Your task to perform on an android device: open sync settings in chrome Image 0: 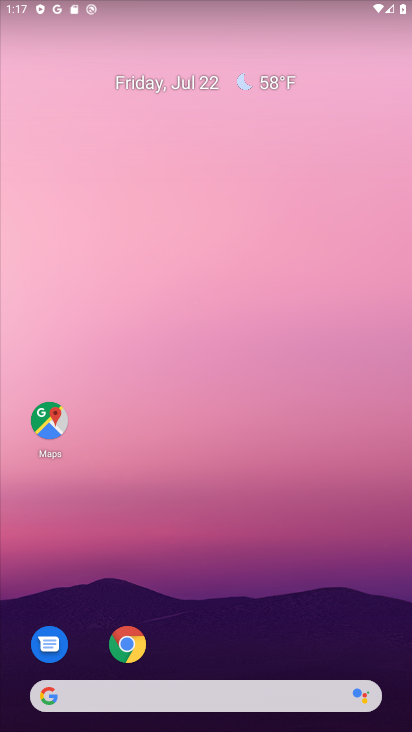
Step 0: drag from (177, 661) to (230, 152)
Your task to perform on an android device: open sync settings in chrome Image 1: 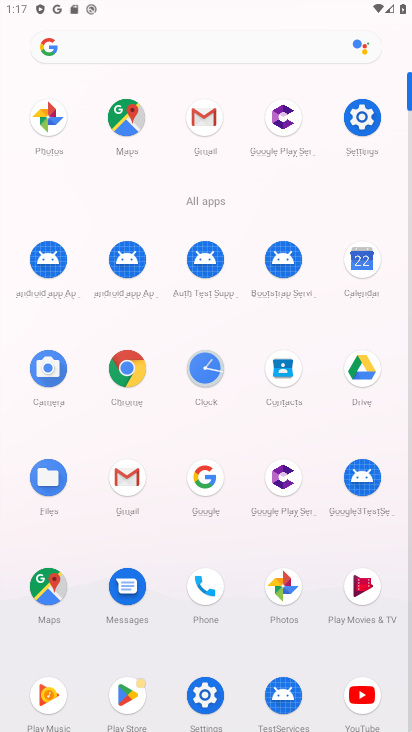
Step 1: click (128, 371)
Your task to perform on an android device: open sync settings in chrome Image 2: 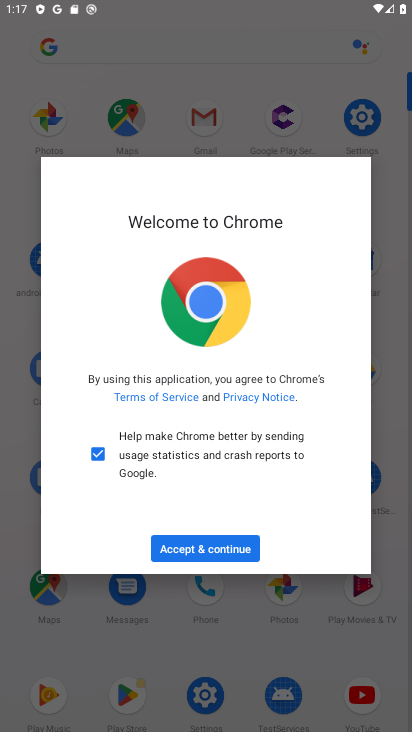
Step 2: click (204, 554)
Your task to perform on an android device: open sync settings in chrome Image 3: 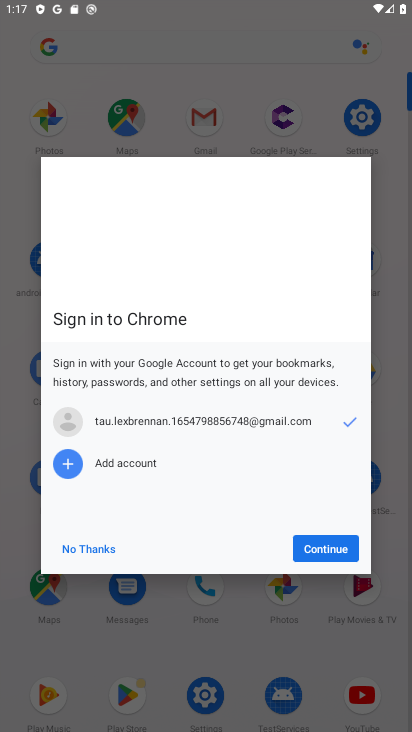
Step 3: click (318, 541)
Your task to perform on an android device: open sync settings in chrome Image 4: 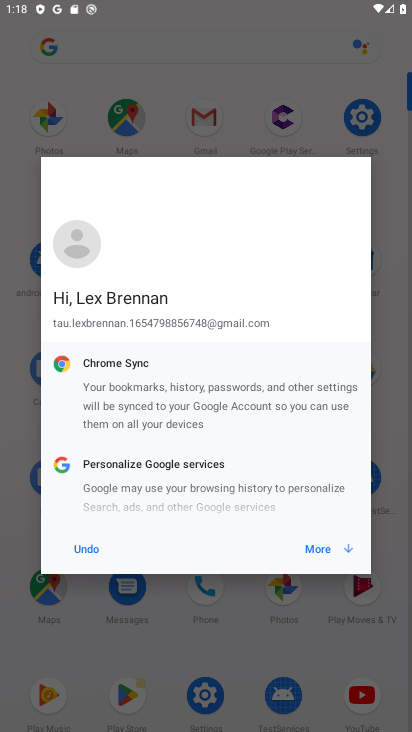
Step 4: click (316, 545)
Your task to perform on an android device: open sync settings in chrome Image 5: 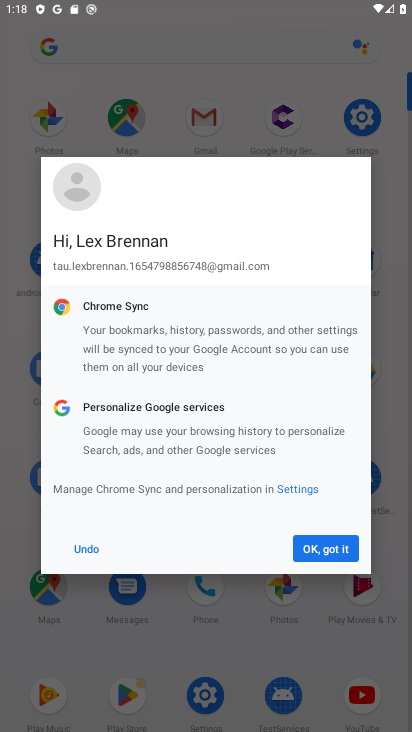
Step 5: click (316, 545)
Your task to perform on an android device: open sync settings in chrome Image 6: 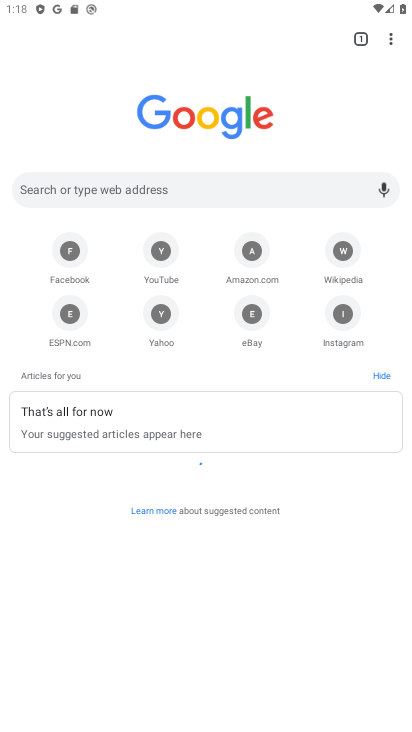
Step 6: click (386, 39)
Your task to perform on an android device: open sync settings in chrome Image 7: 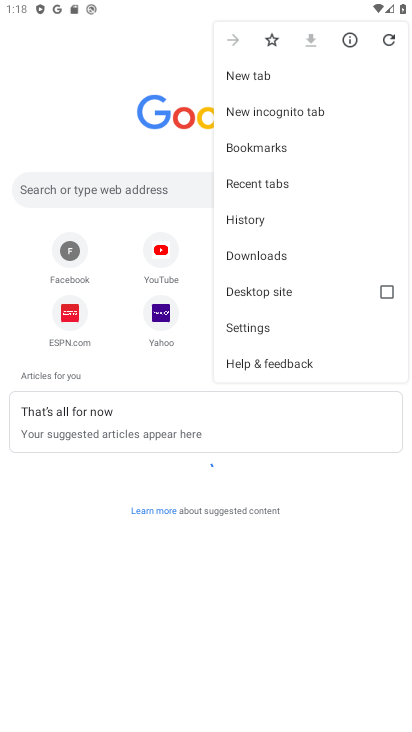
Step 7: click (261, 327)
Your task to perform on an android device: open sync settings in chrome Image 8: 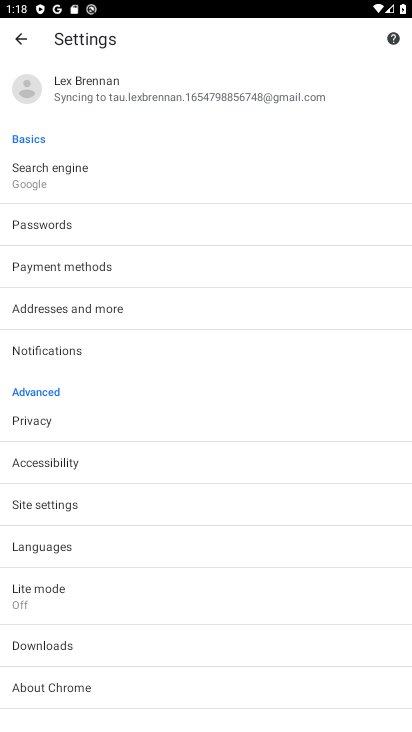
Step 8: click (61, 507)
Your task to perform on an android device: open sync settings in chrome Image 9: 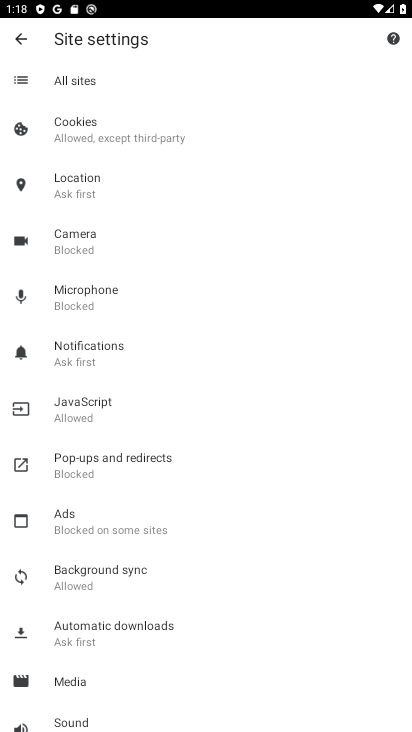
Step 9: click (120, 564)
Your task to perform on an android device: open sync settings in chrome Image 10: 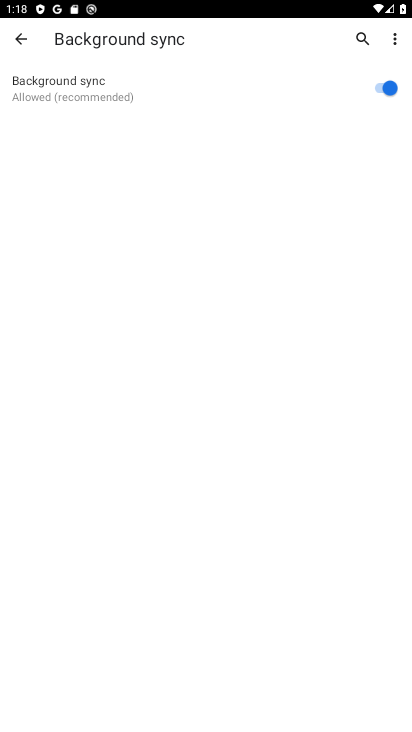
Step 10: task complete